Your task to perform on an android device: Is it going to rain this weekend? Image 0: 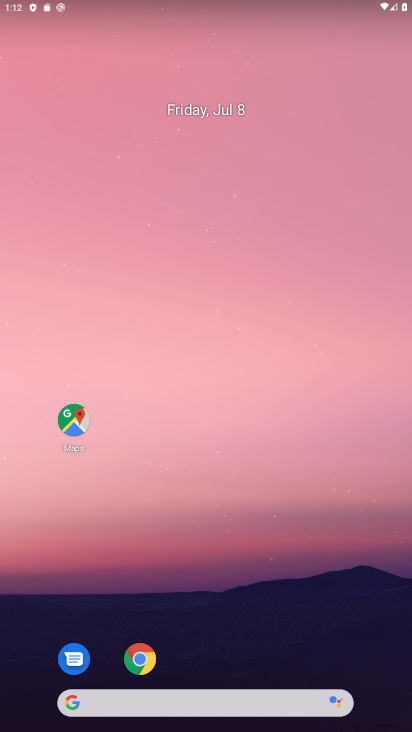
Step 0: drag from (341, 519) to (14, 20)
Your task to perform on an android device: Is it going to rain this weekend? Image 1: 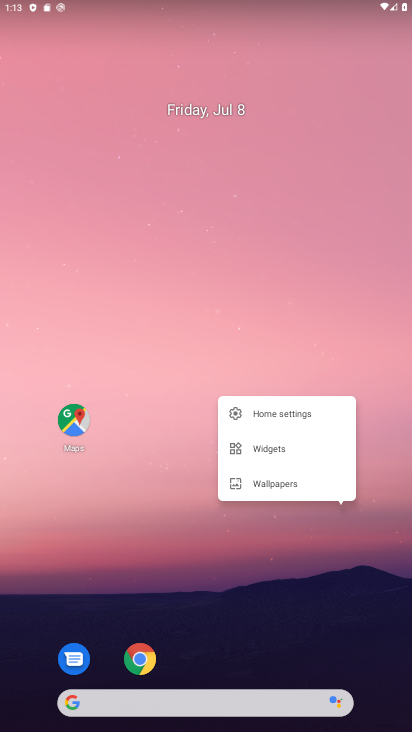
Step 1: click (196, 263)
Your task to perform on an android device: Is it going to rain this weekend? Image 2: 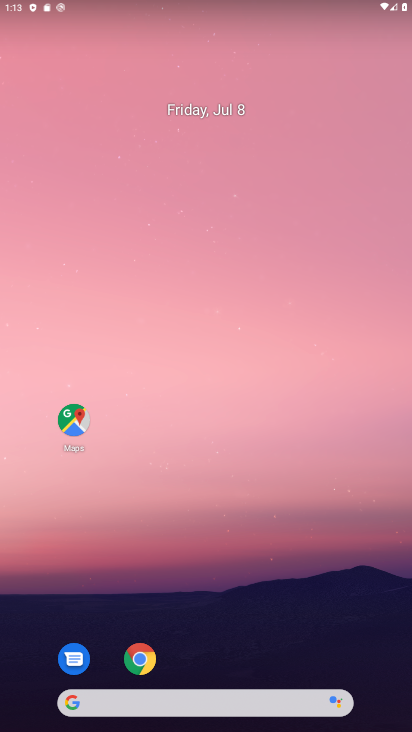
Step 2: click (254, 477)
Your task to perform on an android device: Is it going to rain this weekend? Image 3: 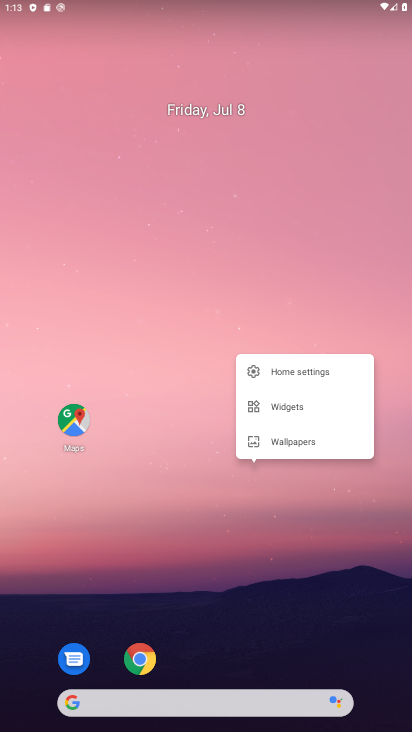
Step 3: click (57, 244)
Your task to perform on an android device: Is it going to rain this weekend? Image 4: 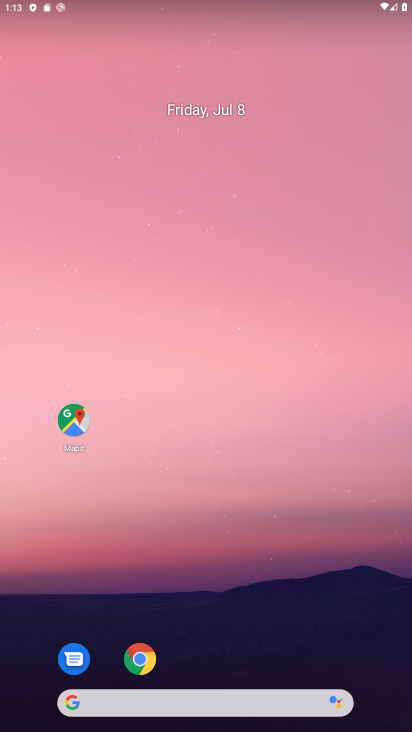
Step 4: click (196, 706)
Your task to perform on an android device: Is it going to rain this weekend? Image 5: 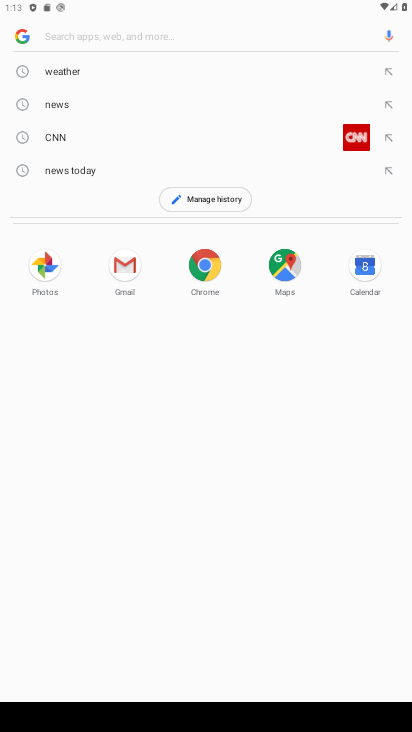
Step 5: click (110, 63)
Your task to perform on an android device: Is it going to rain this weekend? Image 6: 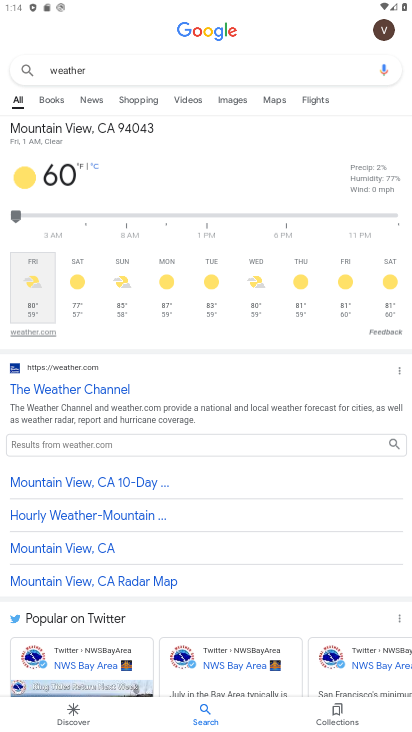
Step 6: click (72, 289)
Your task to perform on an android device: Is it going to rain this weekend? Image 7: 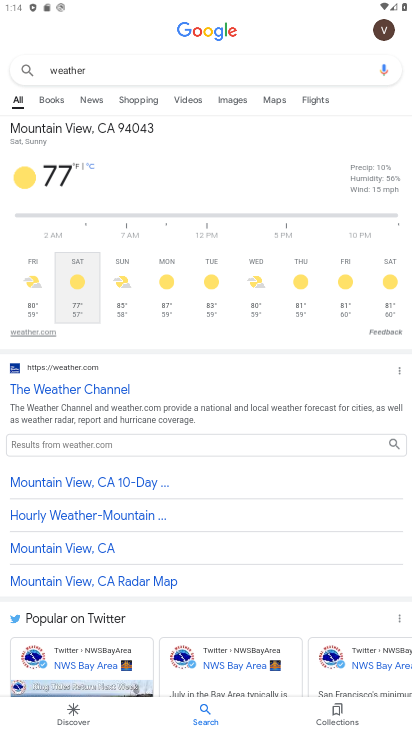
Step 7: click (120, 292)
Your task to perform on an android device: Is it going to rain this weekend? Image 8: 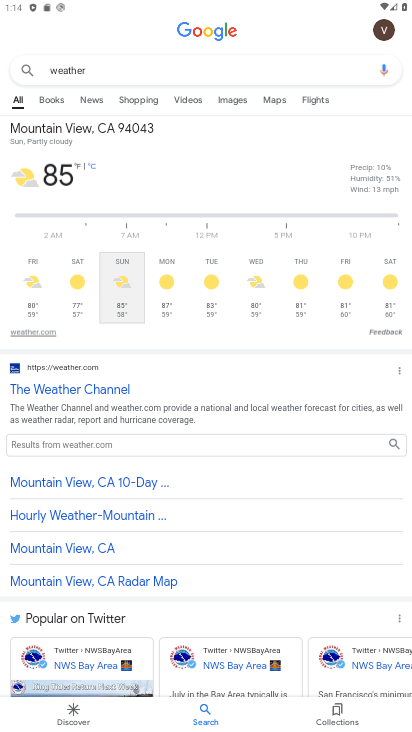
Step 8: task complete